Your task to perform on an android device: snooze an email in the gmail app Image 0: 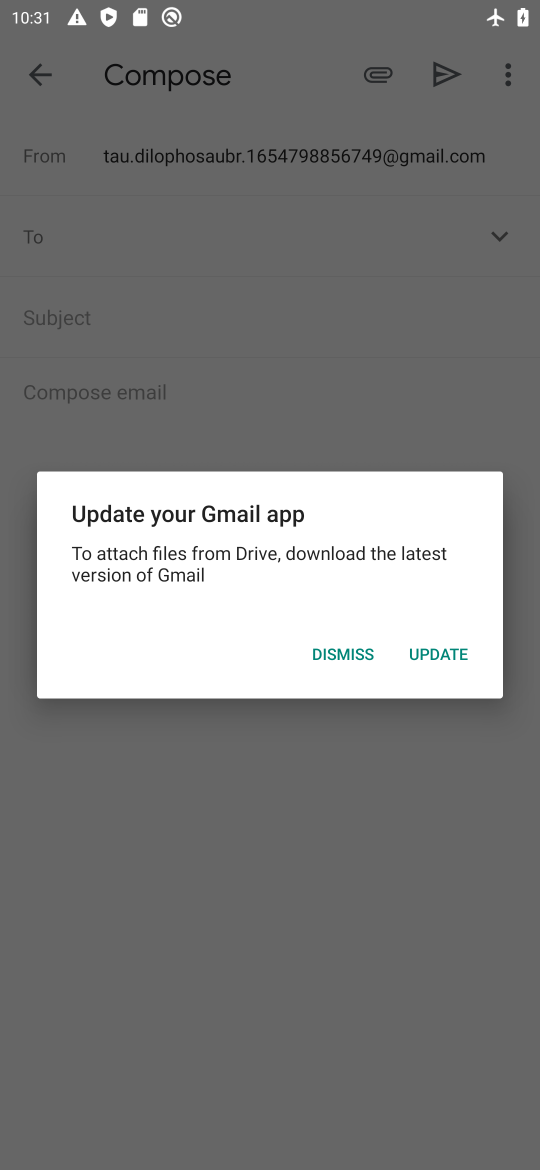
Step 0: press home button
Your task to perform on an android device: snooze an email in the gmail app Image 1: 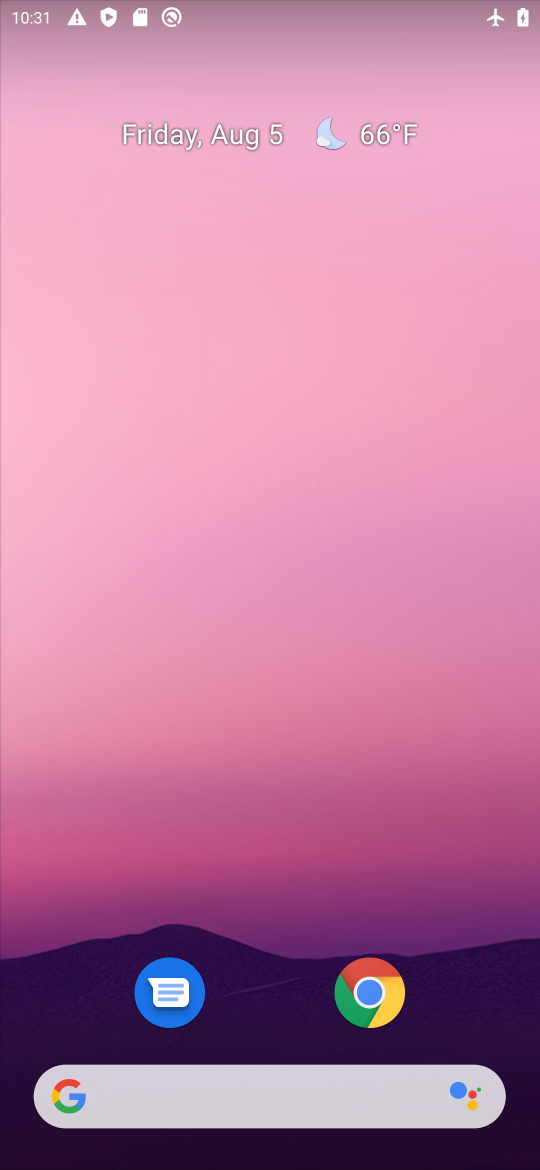
Step 1: drag from (215, 1019) to (281, 312)
Your task to perform on an android device: snooze an email in the gmail app Image 2: 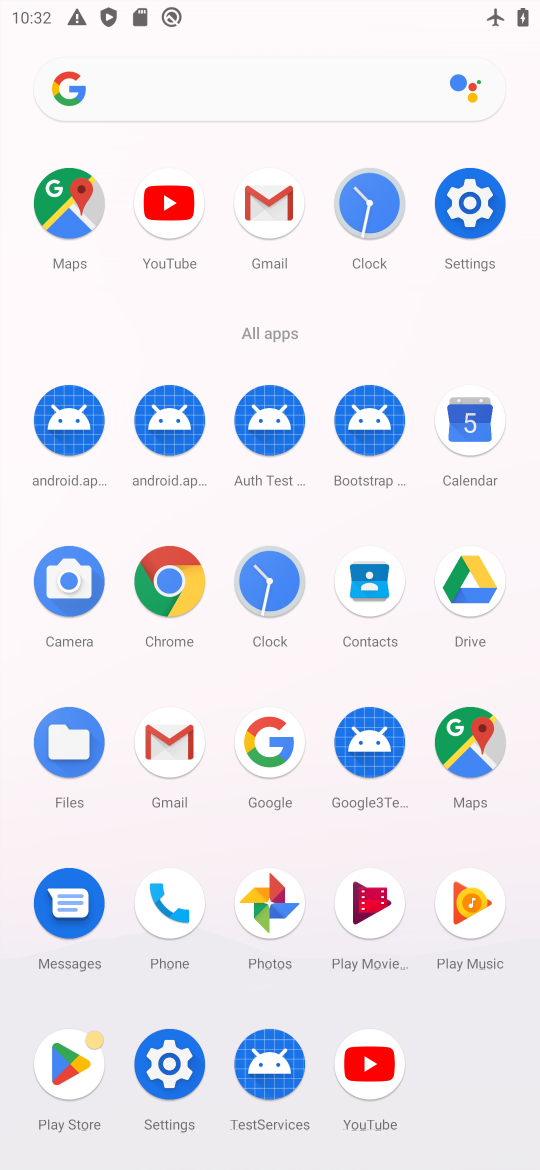
Step 2: click (175, 751)
Your task to perform on an android device: snooze an email in the gmail app Image 3: 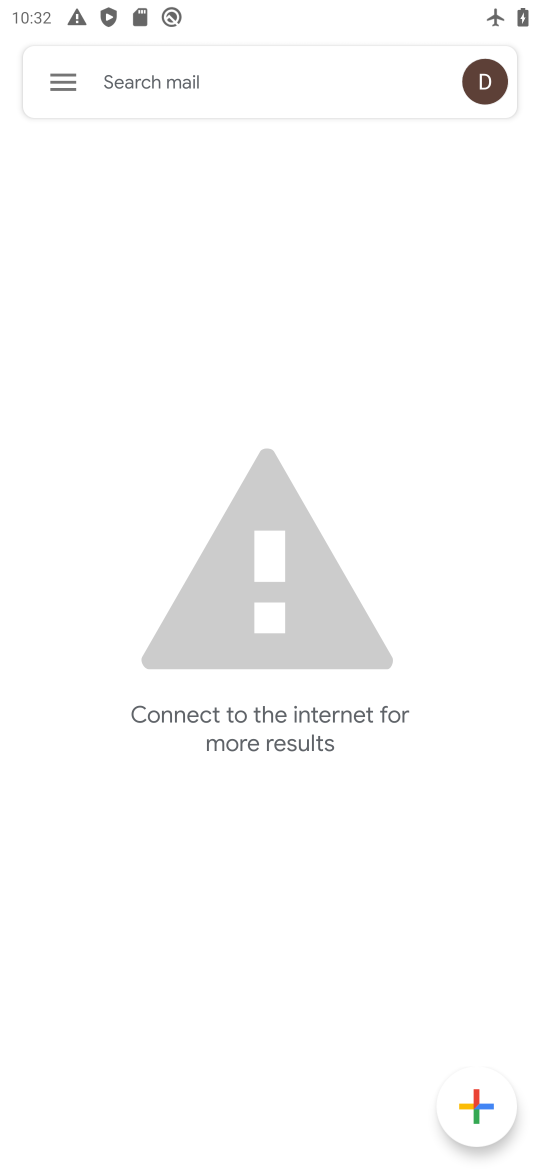
Step 3: click (53, 78)
Your task to perform on an android device: snooze an email in the gmail app Image 4: 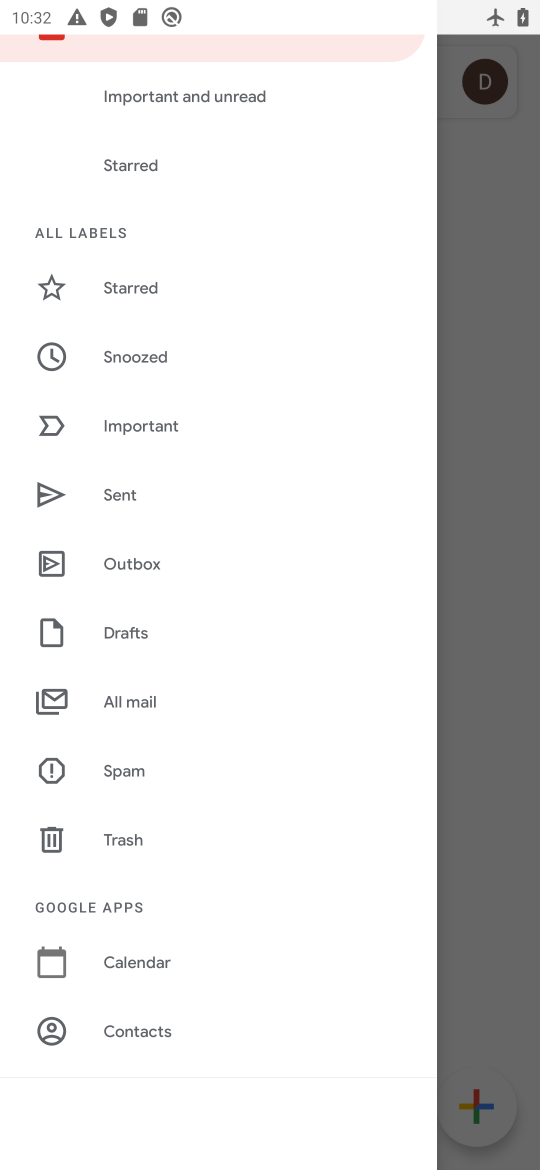
Step 4: click (144, 709)
Your task to perform on an android device: snooze an email in the gmail app Image 5: 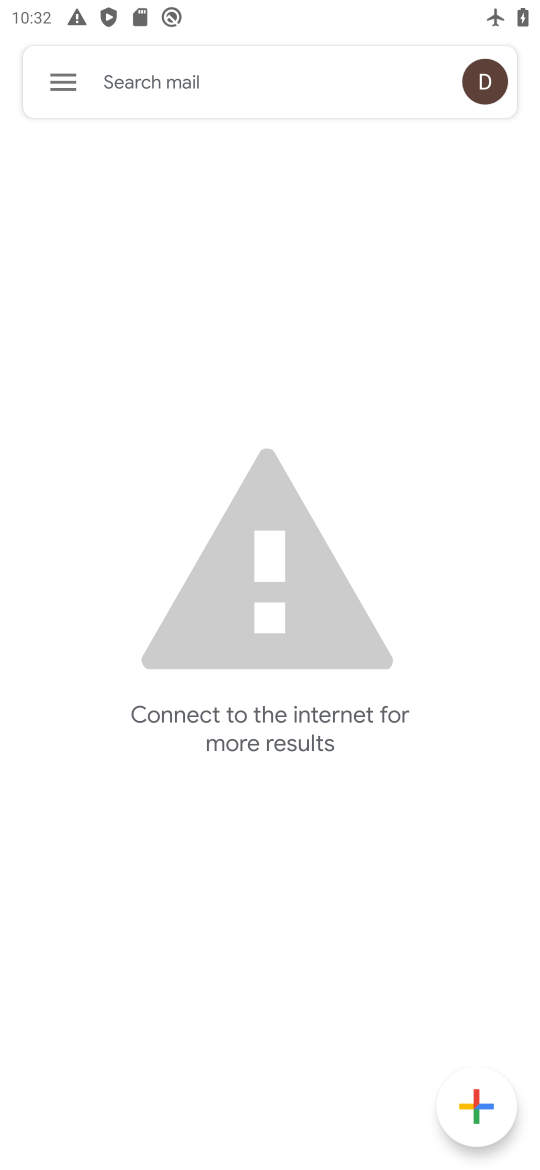
Step 5: click (70, 97)
Your task to perform on an android device: snooze an email in the gmail app Image 6: 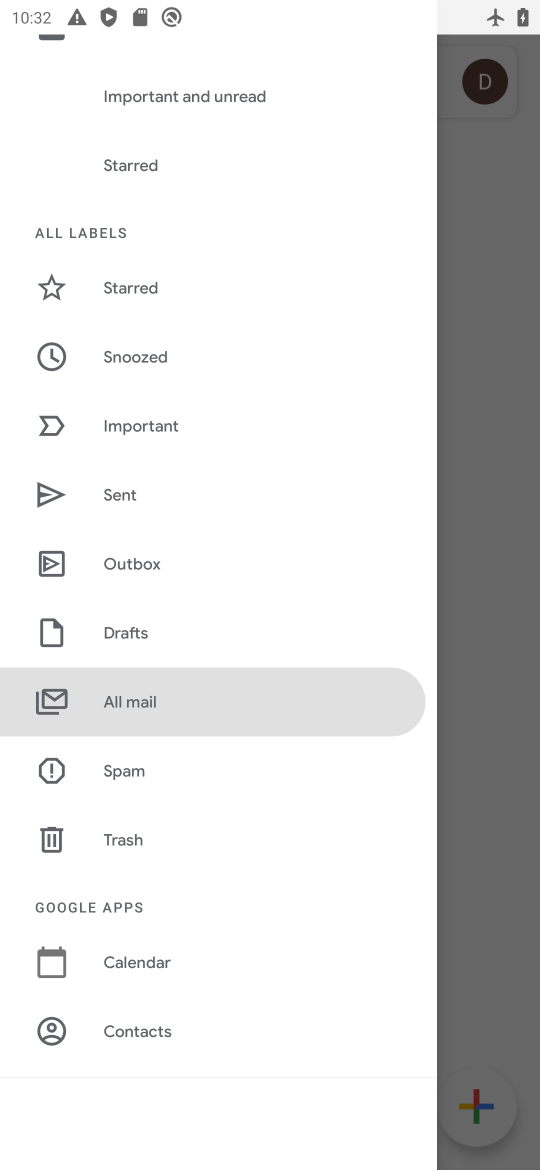
Step 6: click (170, 717)
Your task to perform on an android device: snooze an email in the gmail app Image 7: 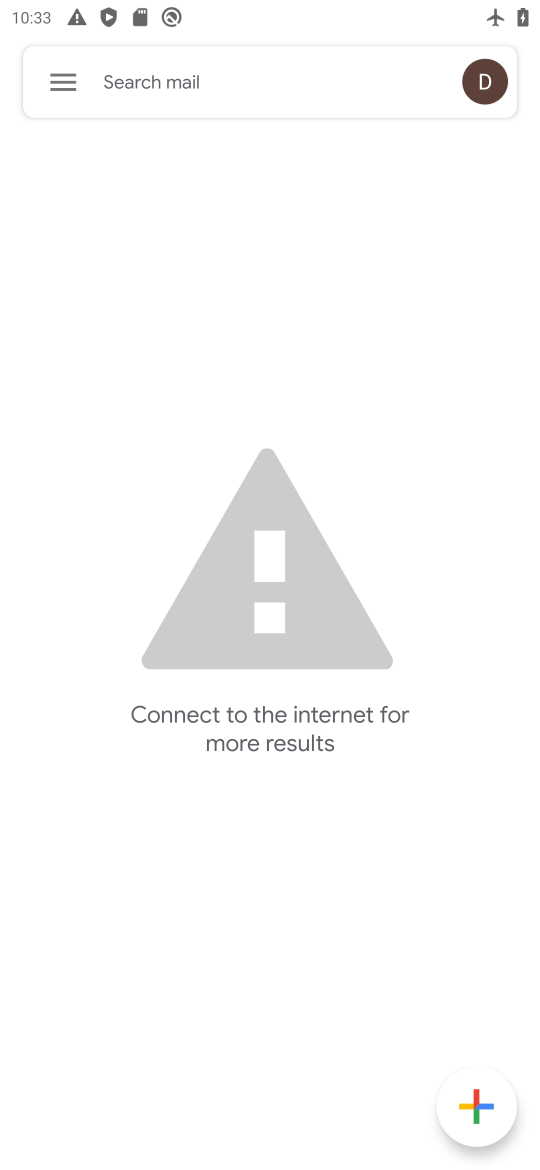
Step 7: task complete